Your task to perform on an android device: search for starred emails in the gmail app Image 0: 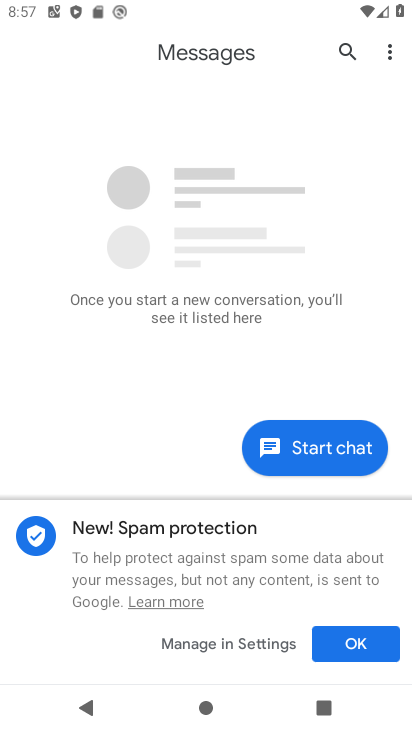
Step 0: press back button
Your task to perform on an android device: search for starred emails in the gmail app Image 1: 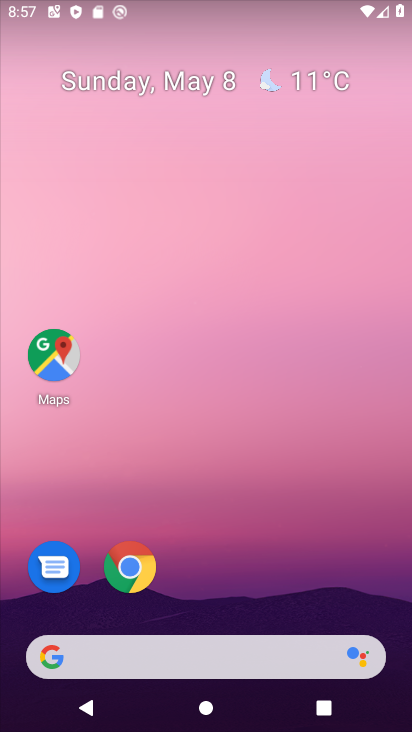
Step 1: drag from (287, 538) to (362, 10)
Your task to perform on an android device: search for starred emails in the gmail app Image 2: 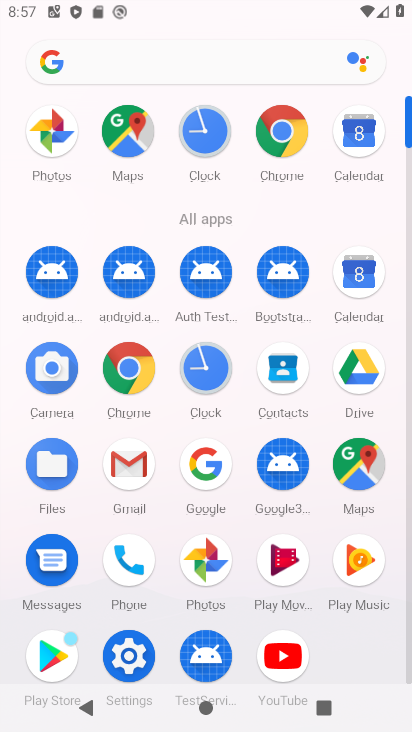
Step 2: click (125, 465)
Your task to perform on an android device: search for starred emails in the gmail app Image 3: 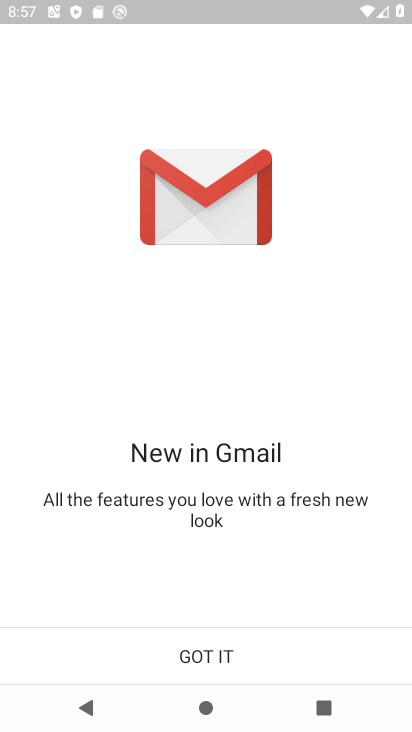
Step 3: click (239, 655)
Your task to perform on an android device: search for starred emails in the gmail app Image 4: 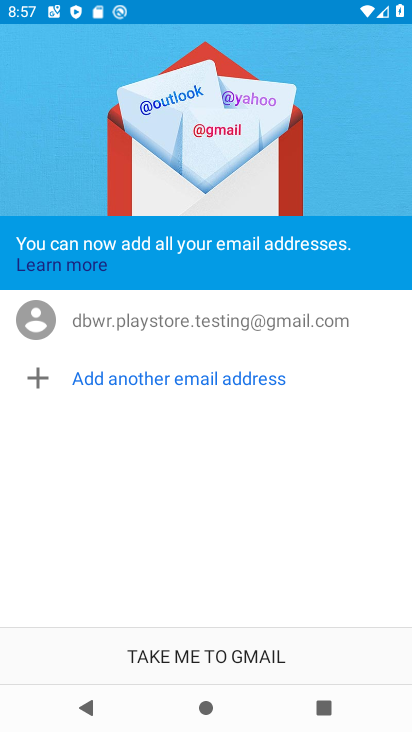
Step 4: click (224, 650)
Your task to perform on an android device: search for starred emails in the gmail app Image 5: 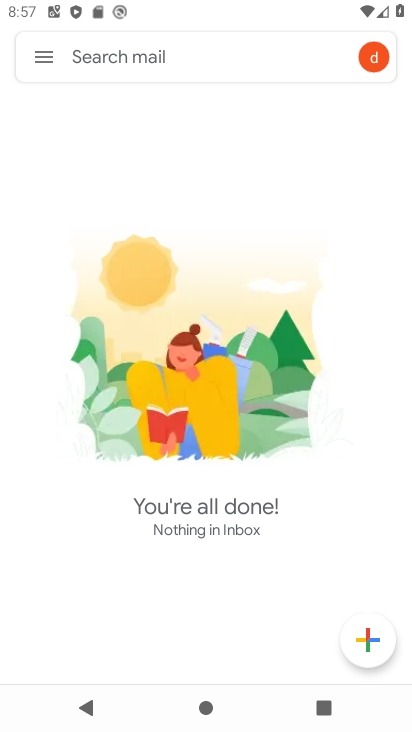
Step 5: click (40, 57)
Your task to perform on an android device: search for starred emails in the gmail app Image 6: 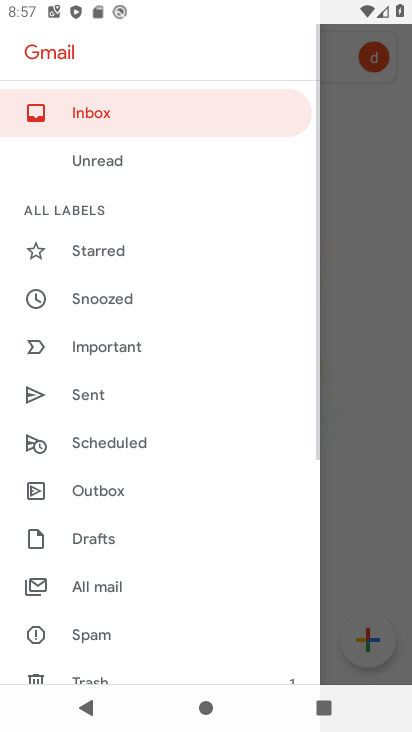
Step 6: click (98, 250)
Your task to perform on an android device: search for starred emails in the gmail app Image 7: 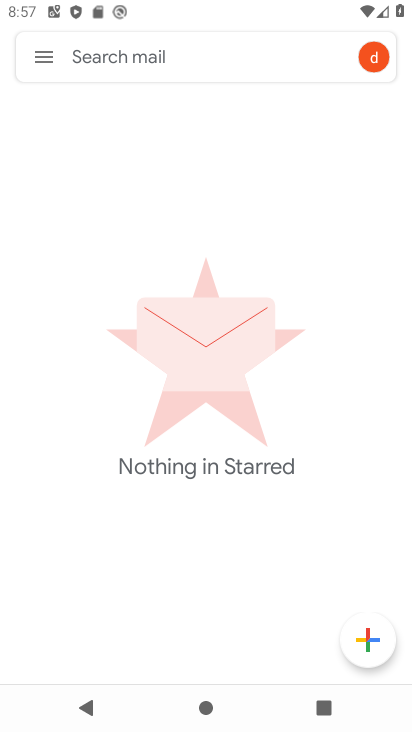
Step 7: task complete